Your task to perform on an android device: toggle airplane mode Image 0: 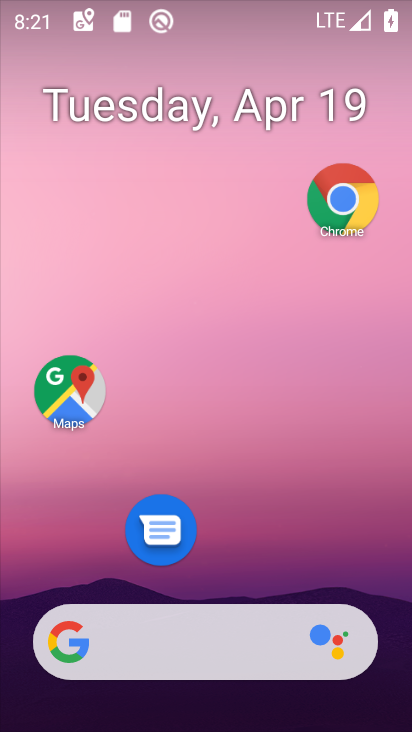
Step 0: click (271, 230)
Your task to perform on an android device: toggle airplane mode Image 1: 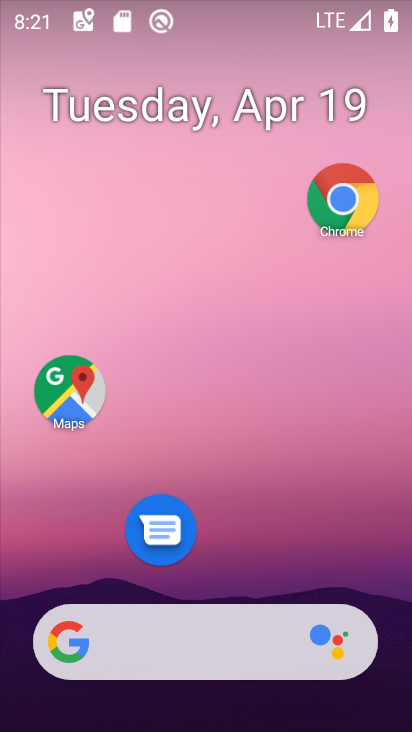
Step 1: drag from (212, 519) to (282, 61)
Your task to perform on an android device: toggle airplane mode Image 2: 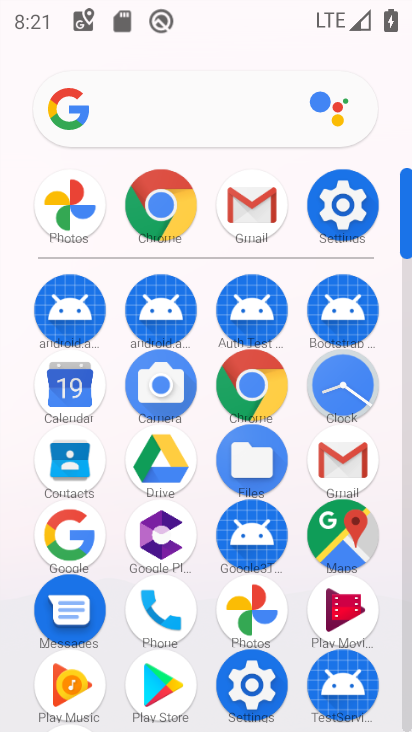
Step 2: drag from (202, 656) to (211, 217)
Your task to perform on an android device: toggle airplane mode Image 3: 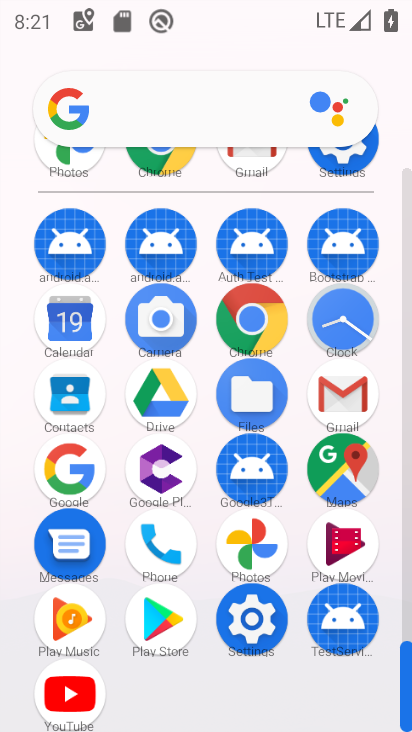
Step 3: drag from (218, 613) to (238, 241)
Your task to perform on an android device: toggle airplane mode Image 4: 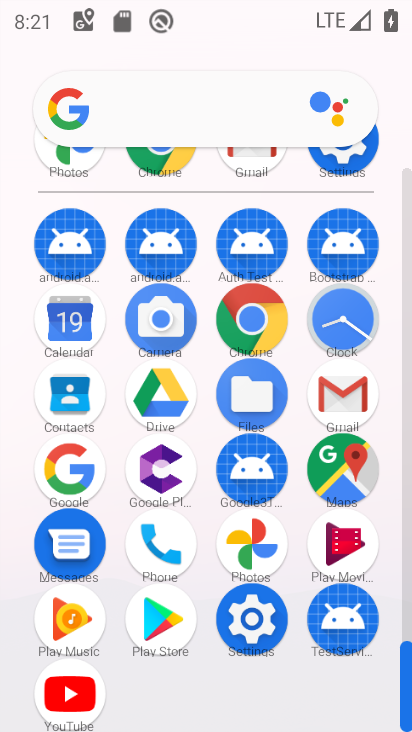
Step 4: click (242, 610)
Your task to perform on an android device: toggle airplane mode Image 5: 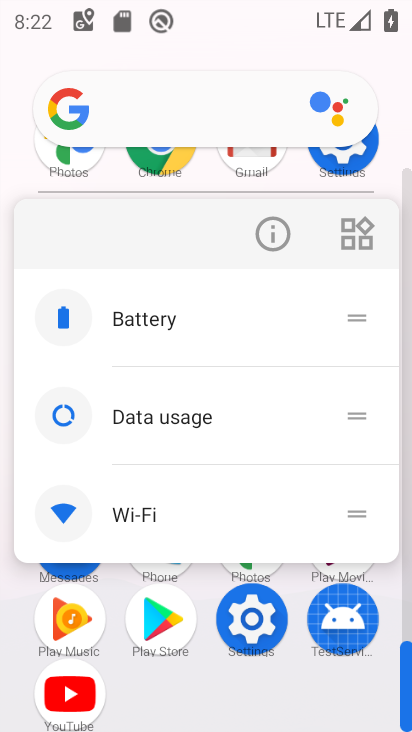
Step 5: click (268, 230)
Your task to perform on an android device: toggle airplane mode Image 6: 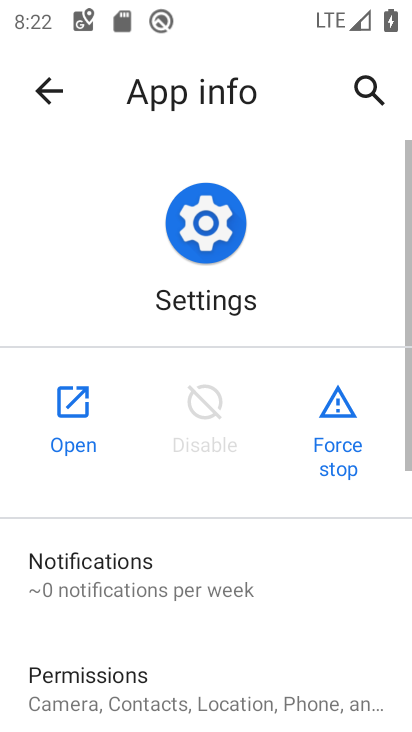
Step 6: click (63, 404)
Your task to perform on an android device: toggle airplane mode Image 7: 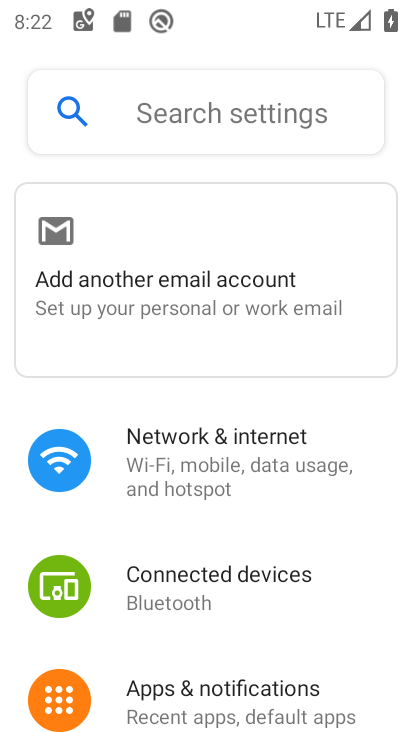
Step 7: click (223, 463)
Your task to perform on an android device: toggle airplane mode Image 8: 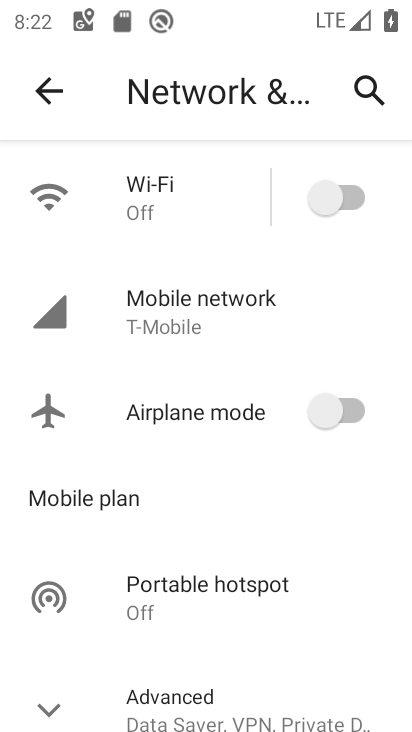
Step 8: click (231, 411)
Your task to perform on an android device: toggle airplane mode Image 9: 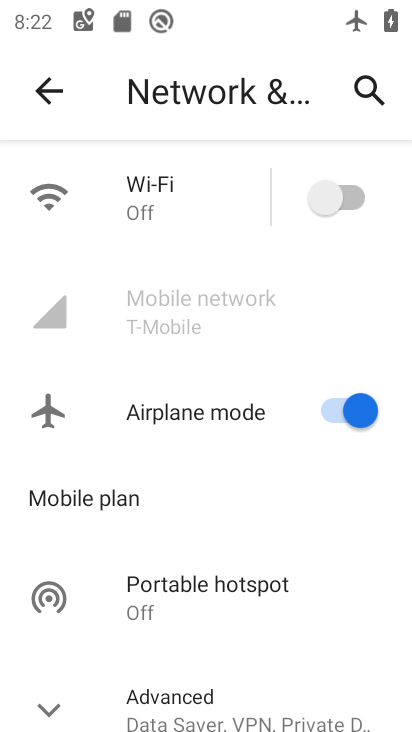
Step 9: task complete